Your task to perform on an android device: Open Chrome and go to settings Image 0: 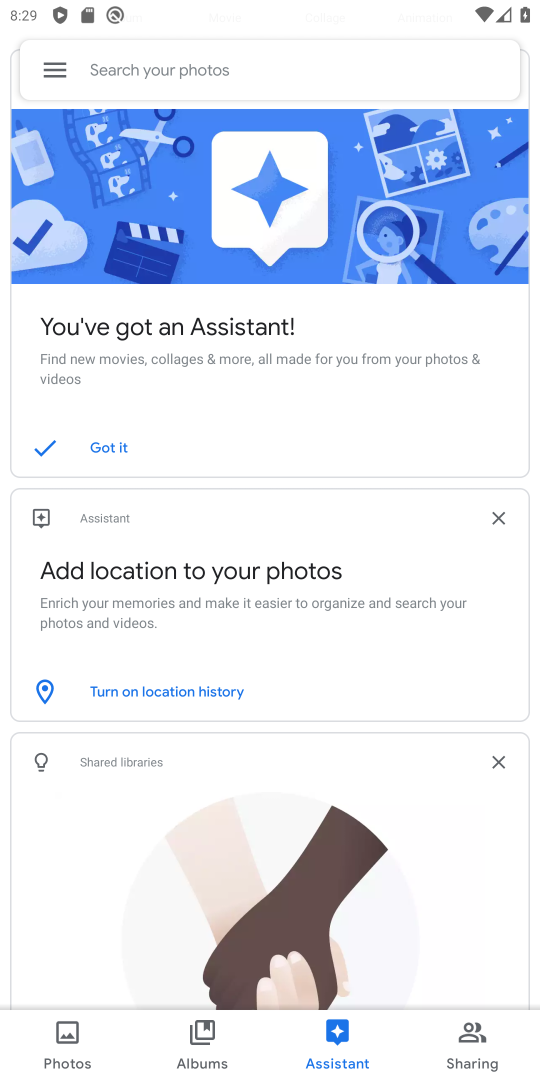
Step 0: click (319, 392)
Your task to perform on an android device: Open Chrome and go to settings Image 1: 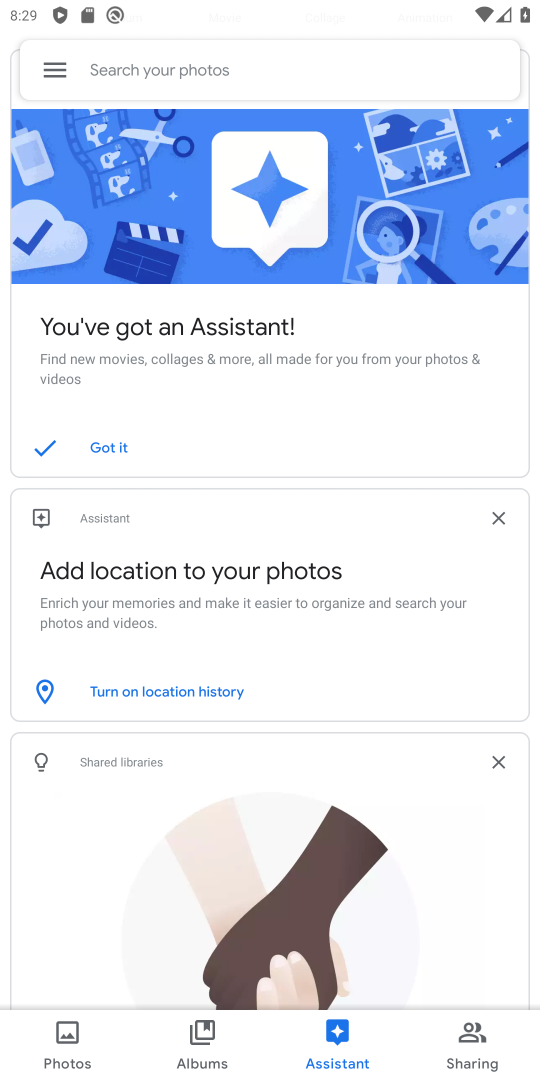
Step 1: press home button
Your task to perform on an android device: Open Chrome and go to settings Image 2: 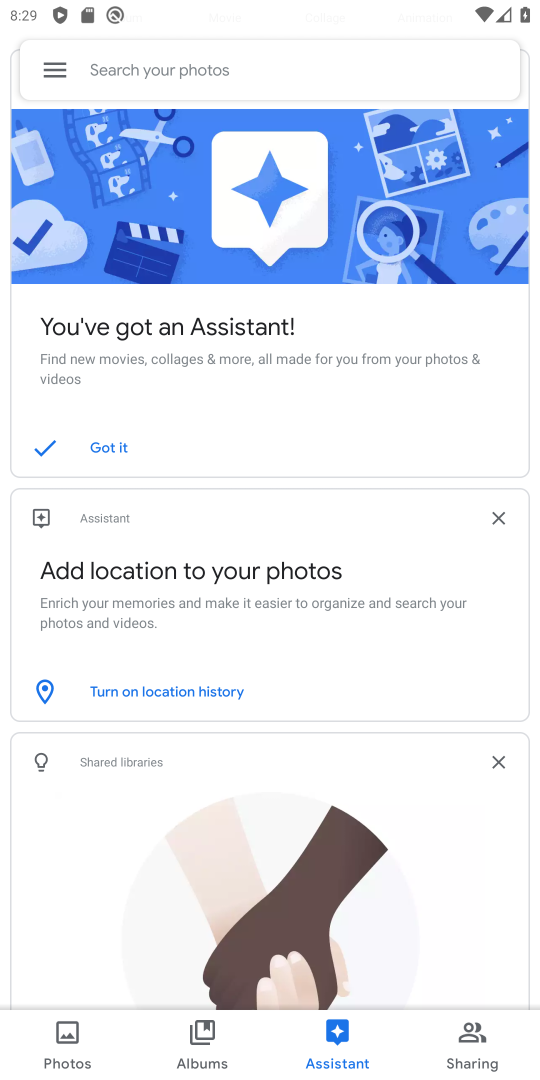
Step 2: drag from (358, 366) to (439, 62)
Your task to perform on an android device: Open Chrome and go to settings Image 3: 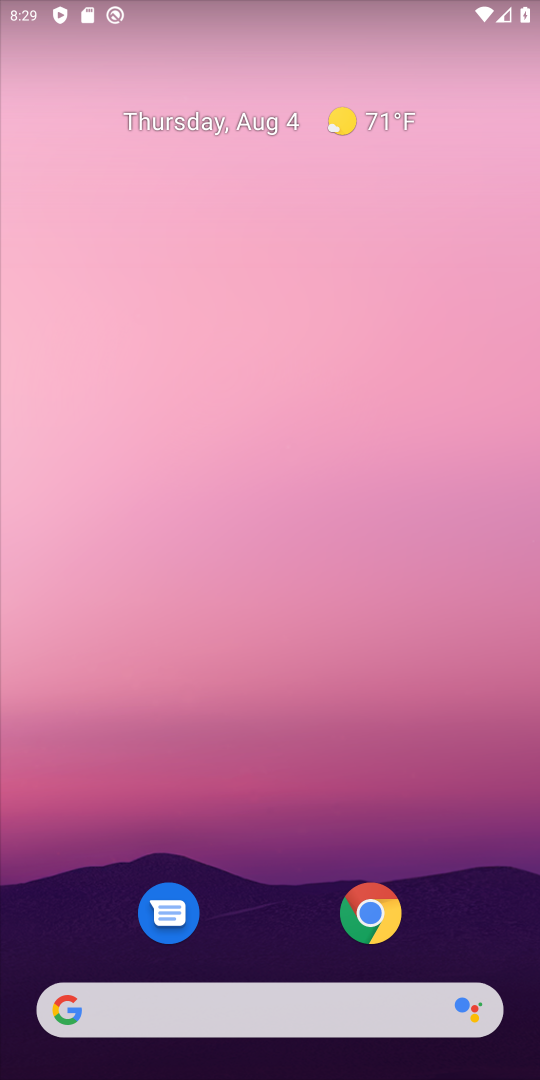
Step 3: click (372, 898)
Your task to perform on an android device: Open Chrome and go to settings Image 4: 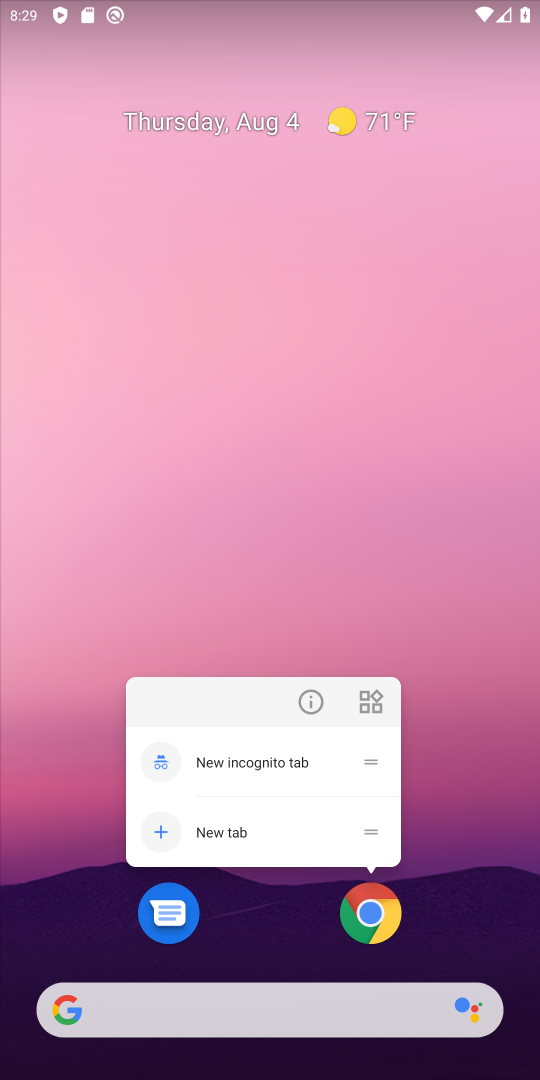
Step 4: click (308, 700)
Your task to perform on an android device: Open Chrome and go to settings Image 5: 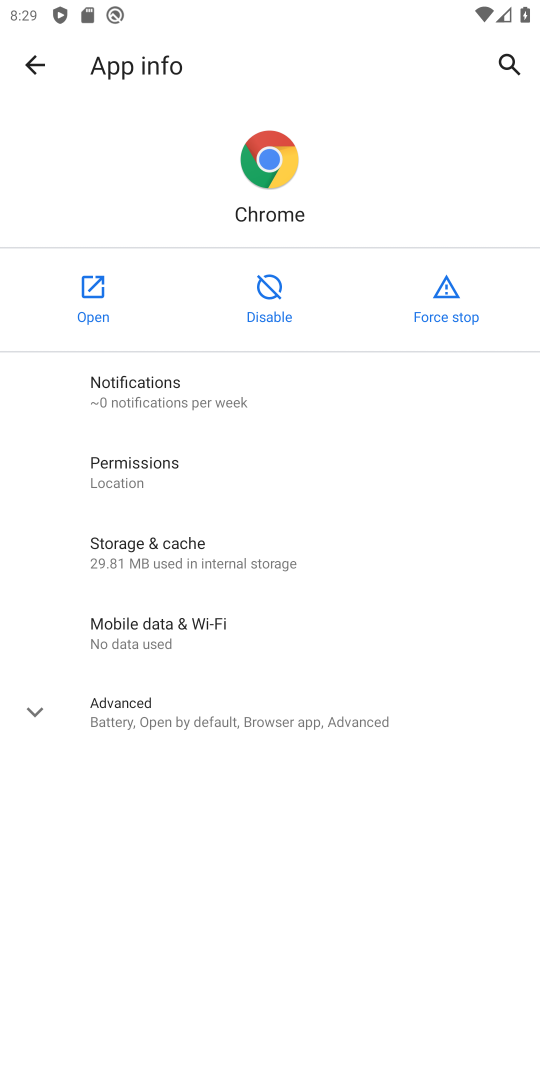
Step 5: click (104, 298)
Your task to perform on an android device: Open Chrome and go to settings Image 6: 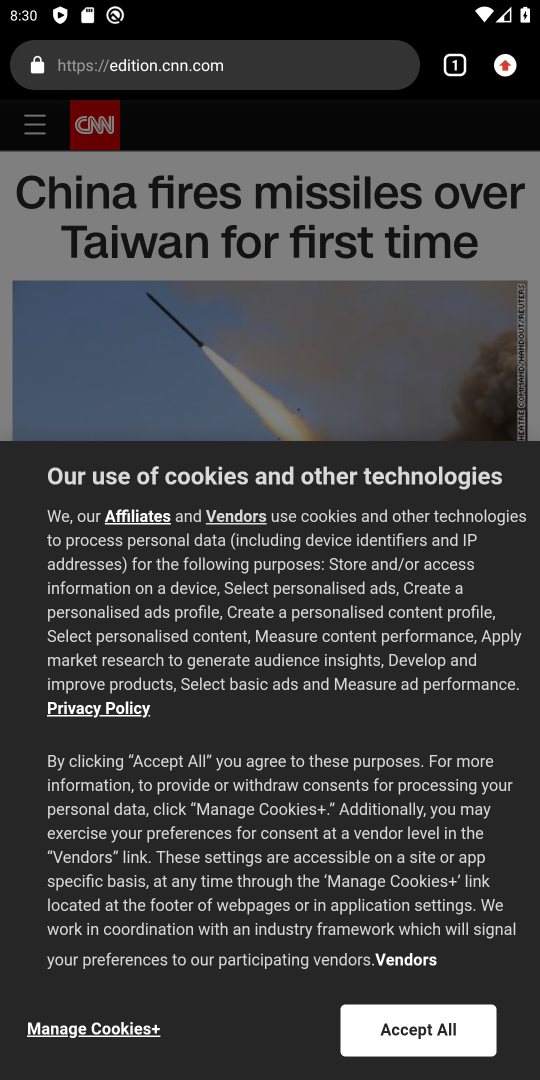
Step 6: task complete